Your task to perform on an android device: open the mobile data screen to see how much data has been used Image 0: 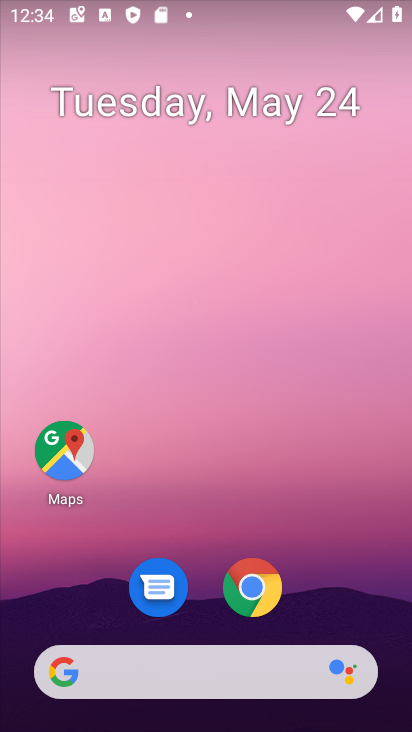
Step 0: drag from (188, 569) to (395, 27)
Your task to perform on an android device: open the mobile data screen to see how much data has been used Image 1: 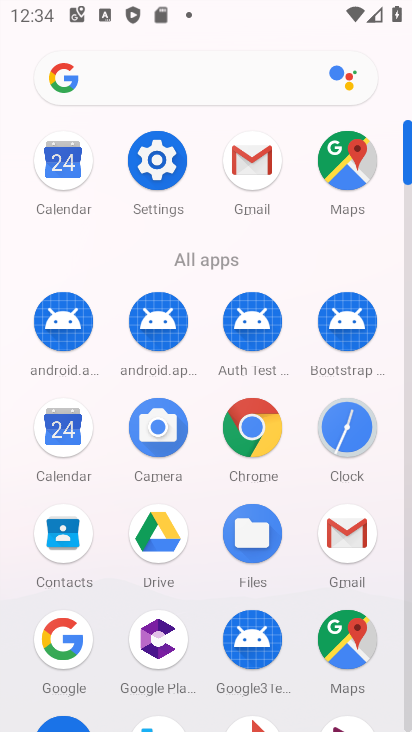
Step 1: click (163, 220)
Your task to perform on an android device: open the mobile data screen to see how much data has been used Image 2: 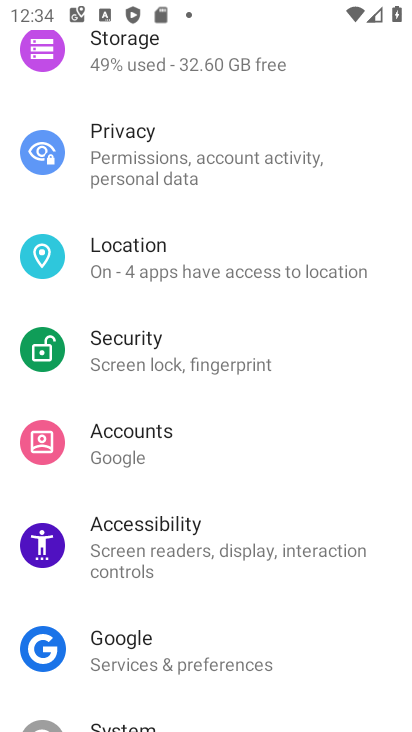
Step 2: drag from (253, 86) to (265, 709)
Your task to perform on an android device: open the mobile data screen to see how much data has been used Image 3: 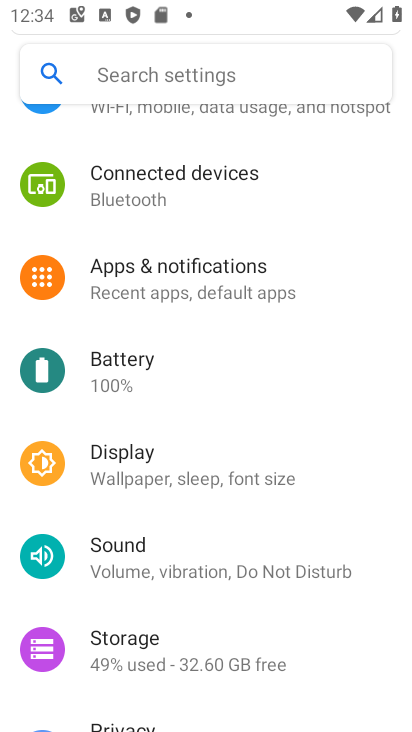
Step 3: click (308, 117)
Your task to perform on an android device: open the mobile data screen to see how much data has been used Image 4: 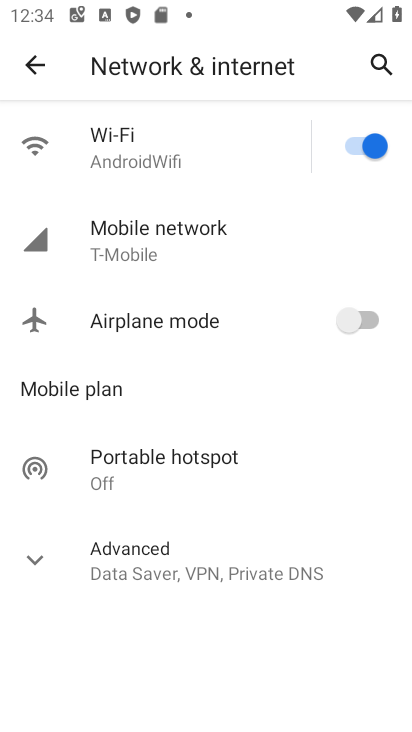
Step 4: click (139, 240)
Your task to perform on an android device: open the mobile data screen to see how much data has been used Image 5: 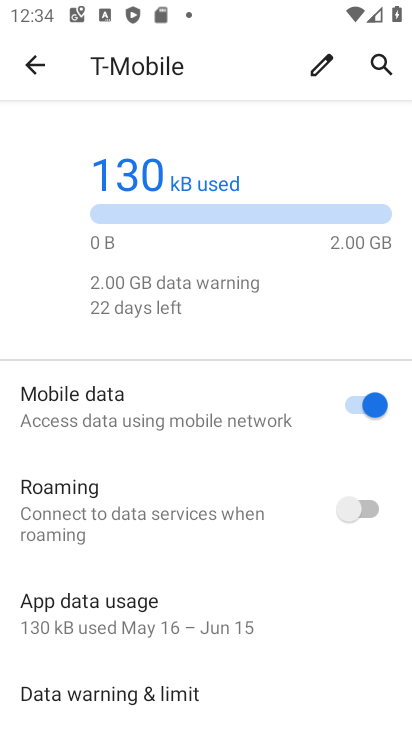
Step 5: task complete